Your task to perform on an android device: toggle show notifications on the lock screen Image 0: 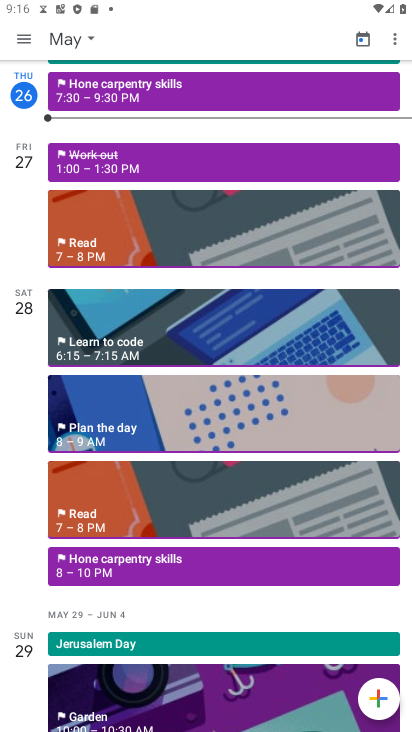
Step 0: press back button
Your task to perform on an android device: toggle show notifications on the lock screen Image 1: 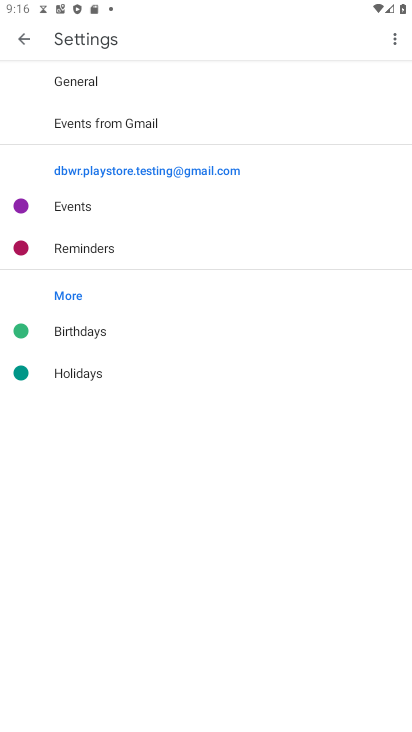
Step 1: press back button
Your task to perform on an android device: toggle show notifications on the lock screen Image 2: 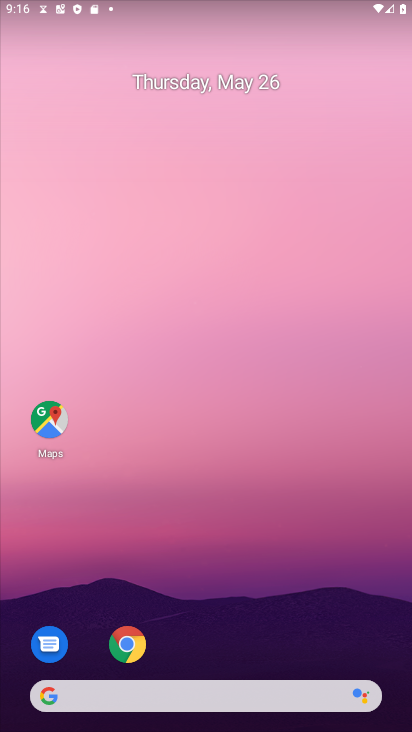
Step 2: drag from (228, 615) to (265, 17)
Your task to perform on an android device: toggle show notifications on the lock screen Image 3: 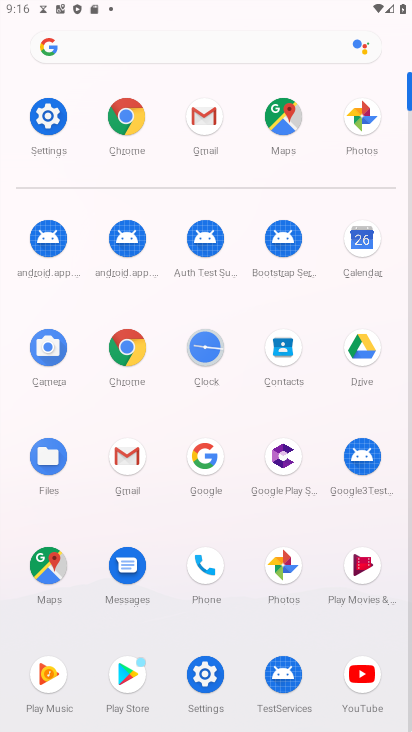
Step 3: click (31, 117)
Your task to perform on an android device: toggle show notifications on the lock screen Image 4: 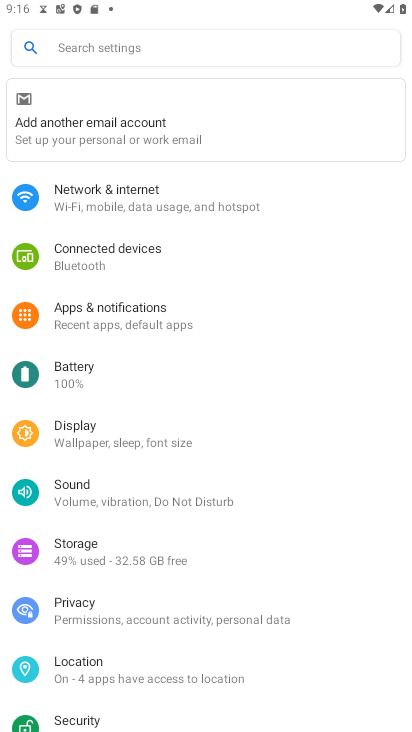
Step 4: click (131, 313)
Your task to perform on an android device: toggle show notifications on the lock screen Image 5: 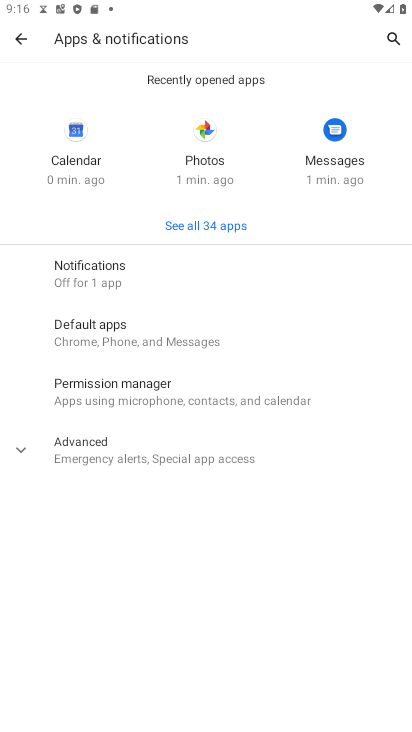
Step 5: click (139, 271)
Your task to perform on an android device: toggle show notifications on the lock screen Image 6: 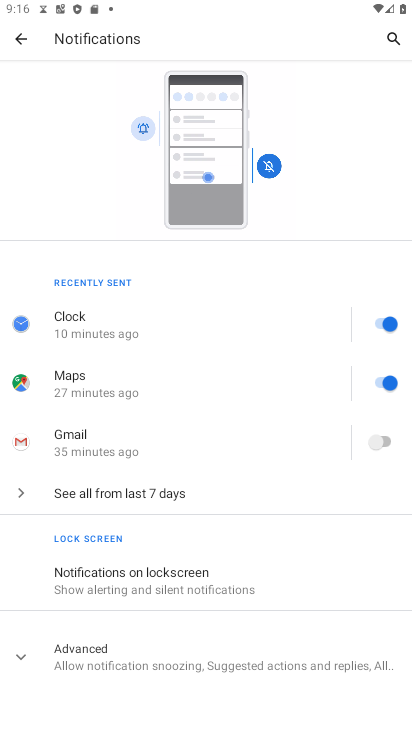
Step 6: click (176, 579)
Your task to perform on an android device: toggle show notifications on the lock screen Image 7: 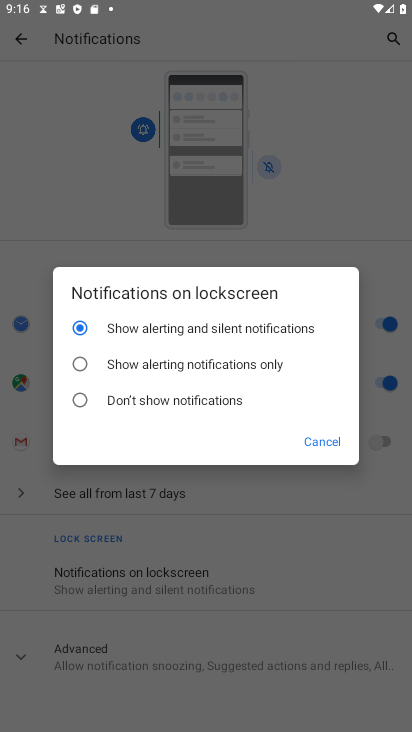
Step 7: click (72, 320)
Your task to perform on an android device: toggle show notifications on the lock screen Image 8: 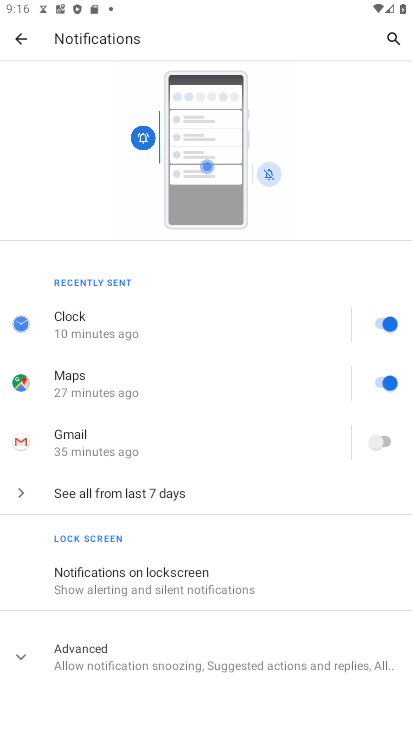
Step 8: task complete